Your task to perform on an android device: open chrome privacy settings Image 0: 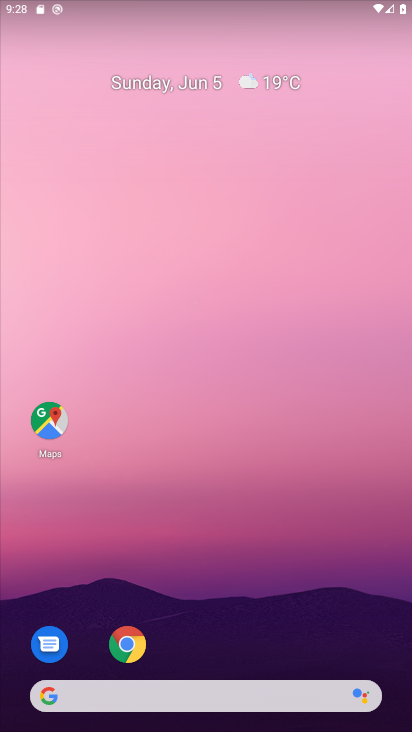
Step 0: click (133, 655)
Your task to perform on an android device: open chrome privacy settings Image 1: 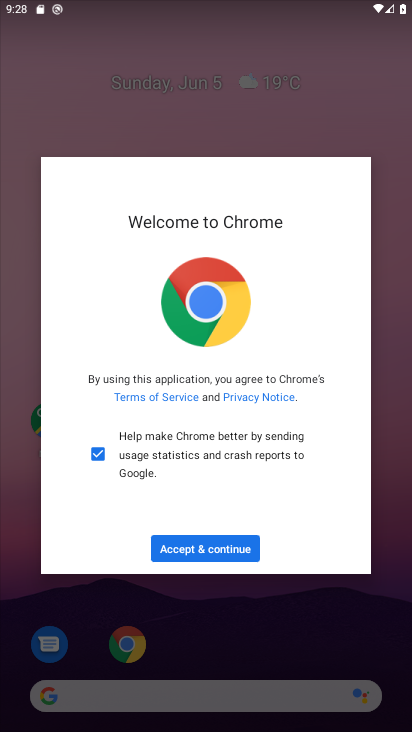
Step 1: click (234, 544)
Your task to perform on an android device: open chrome privacy settings Image 2: 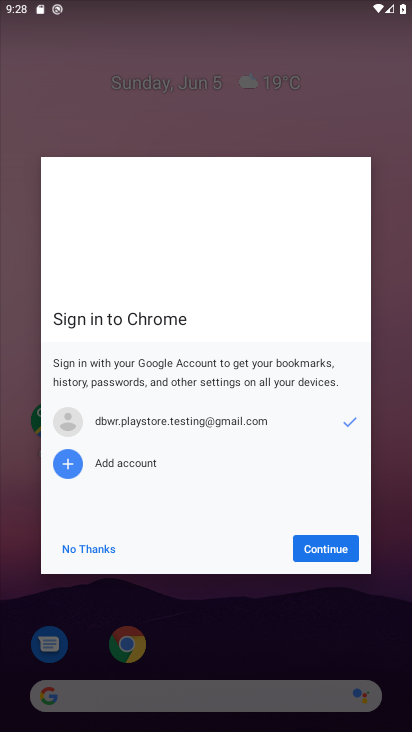
Step 2: click (327, 551)
Your task to perform on an android device: open chrome privacy settings Image 3: 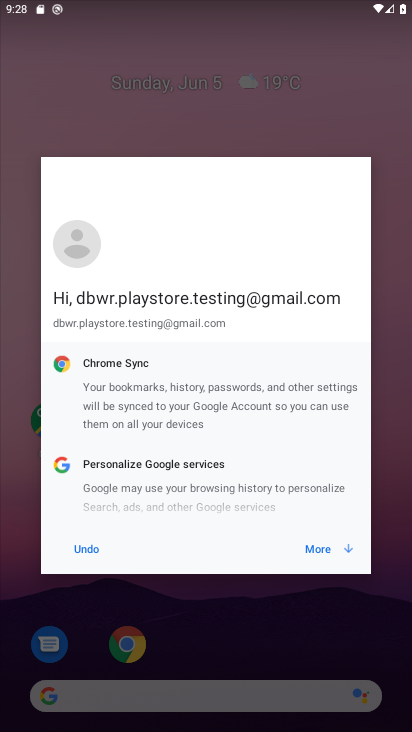
Step 3: click (335, 544)
Your task to perform on an android device: open chrome privacy settings Image 4: 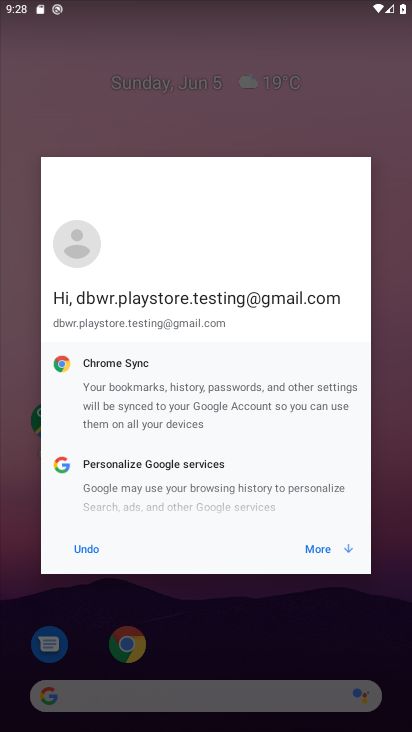
Step 4: click (335, 544)
Your task to perform on an android device: open chrome privacy settings Image 5: 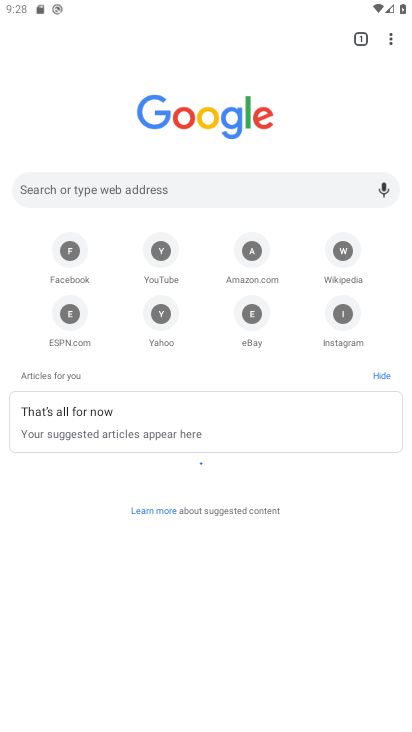
Step 5: click (396, 35)
Your task to perform on an android device: open chrome privacy settings Image 6: 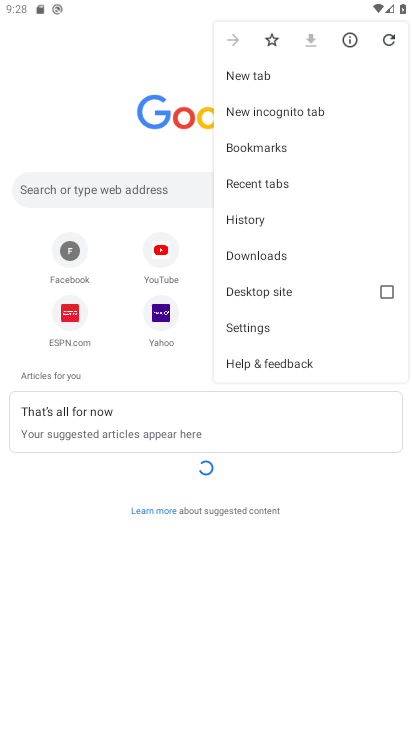
Step 6: click (272, 329)
Your task to perform on an android device: open chrome privacy settings Image 7: 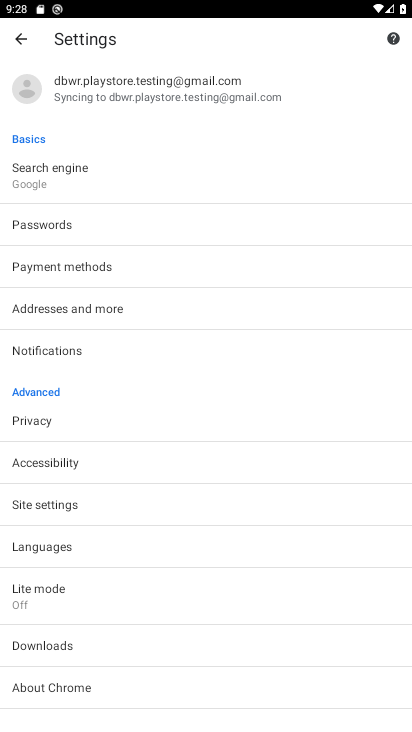
Step 7: click (81, 433)
Your task to perform on an android device: open chrome privacy settings Image 8: 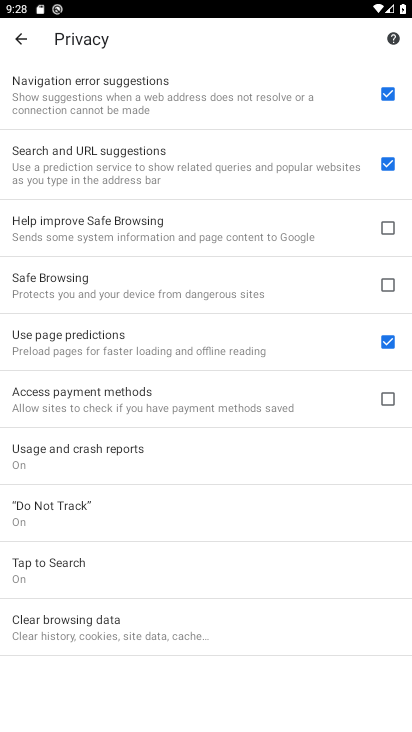
Step 8: task complete